Your task to perform on an android device: turn on airplane mode Image 0: 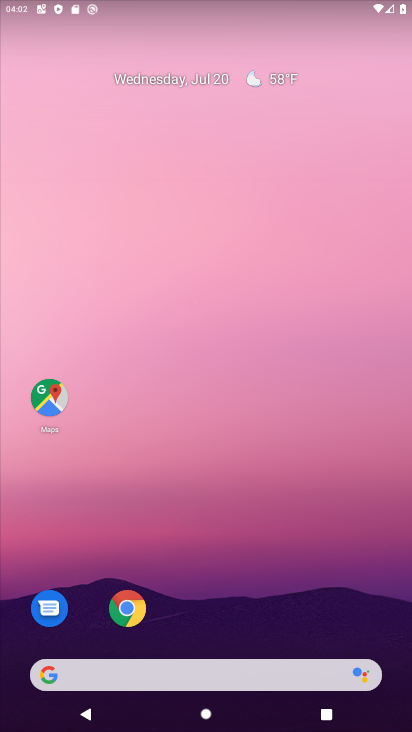
Step 0: drag from (294, 623) to (199, 42)
Your task to perform on an android device: turn on airplane mode Image 1: 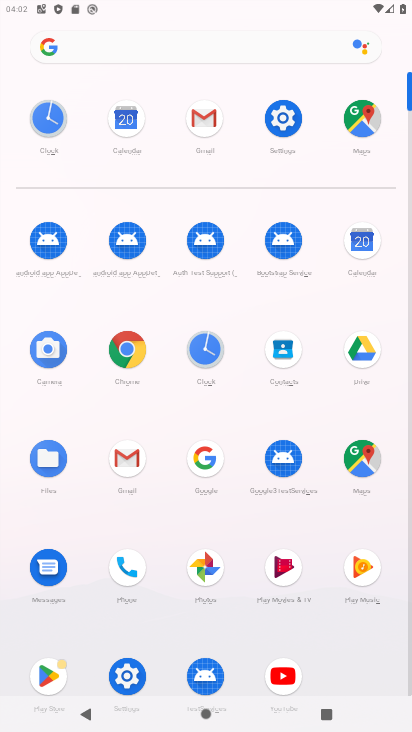
Step 1: click (274, 126)
Your task to perform on an android device: turn on airplane mode Image 2: 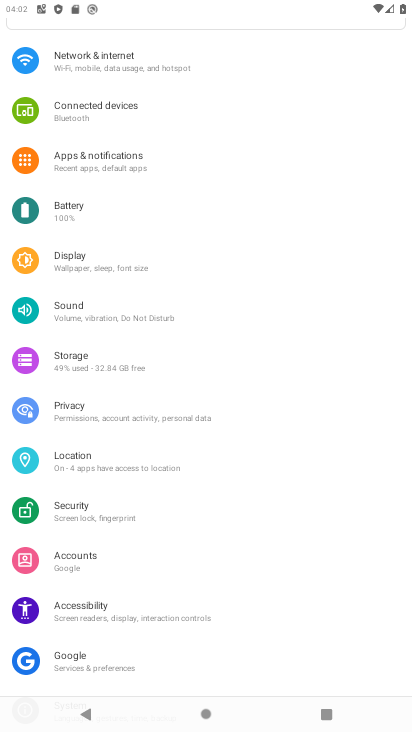
Step 2: click (205, 71)
Your task to perform on an android device: turn on airplane mode Image 3: 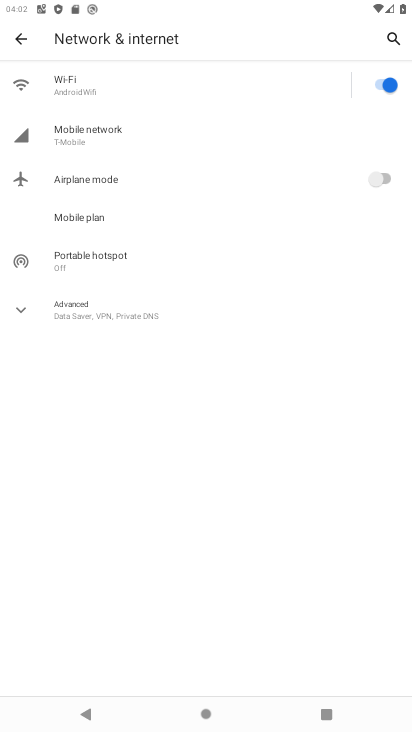
Step 3: click (386, 184)
Your task to perform on an android device: turn on airplane mode Image 4: 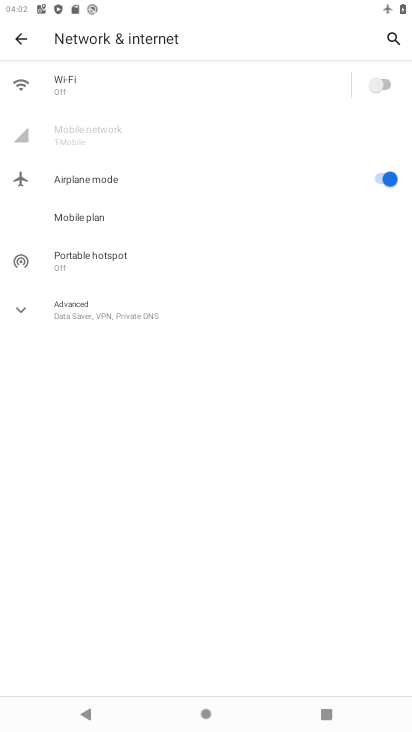
Step 4: click (379, 78)
Your task to perform on an android device: turn on airplane mode Image 5: 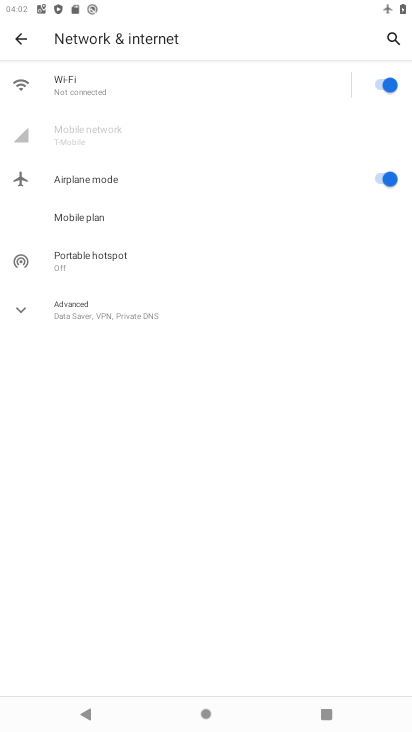
Step 5: task complete